Your task to perform on an android device: open app "Spotify" (install if not already installed) and go to login screen Image 0: 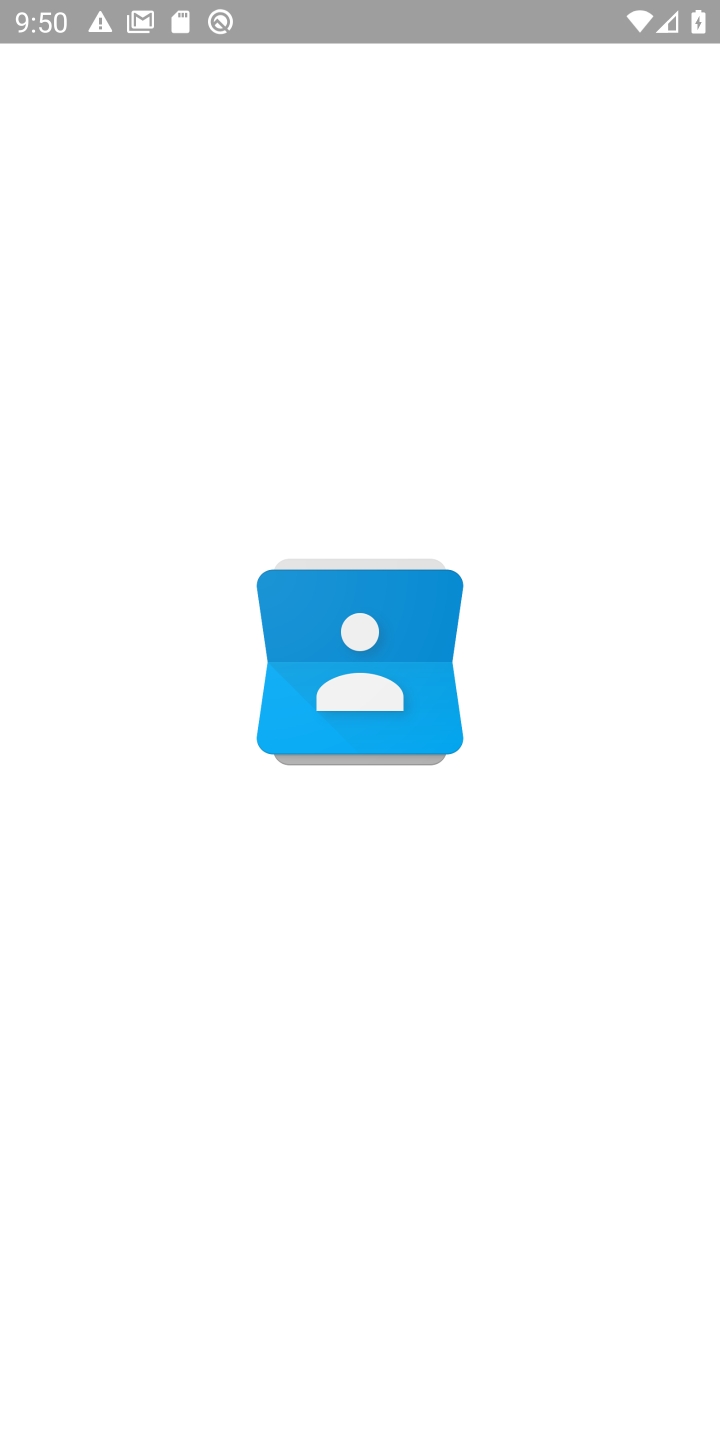
Step 0: press home button
Your task to perform on an android device: open app "Spotify" (install if not already installed) and go to login screen Image 1: 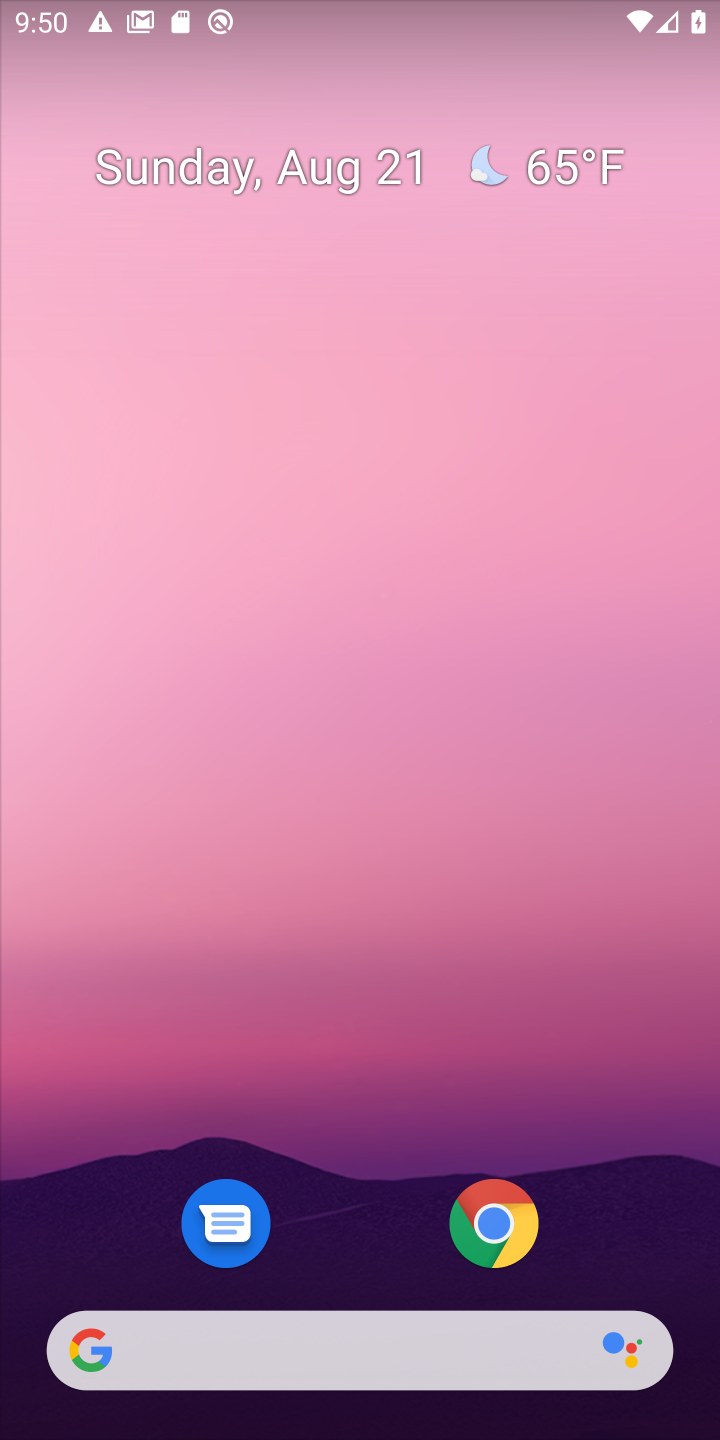
Step 1: drag from (616, 985) to (654, 121)
Your task to perform on an android device: open app "Spotify" (install if not already installed) and go to login screen Image 2: 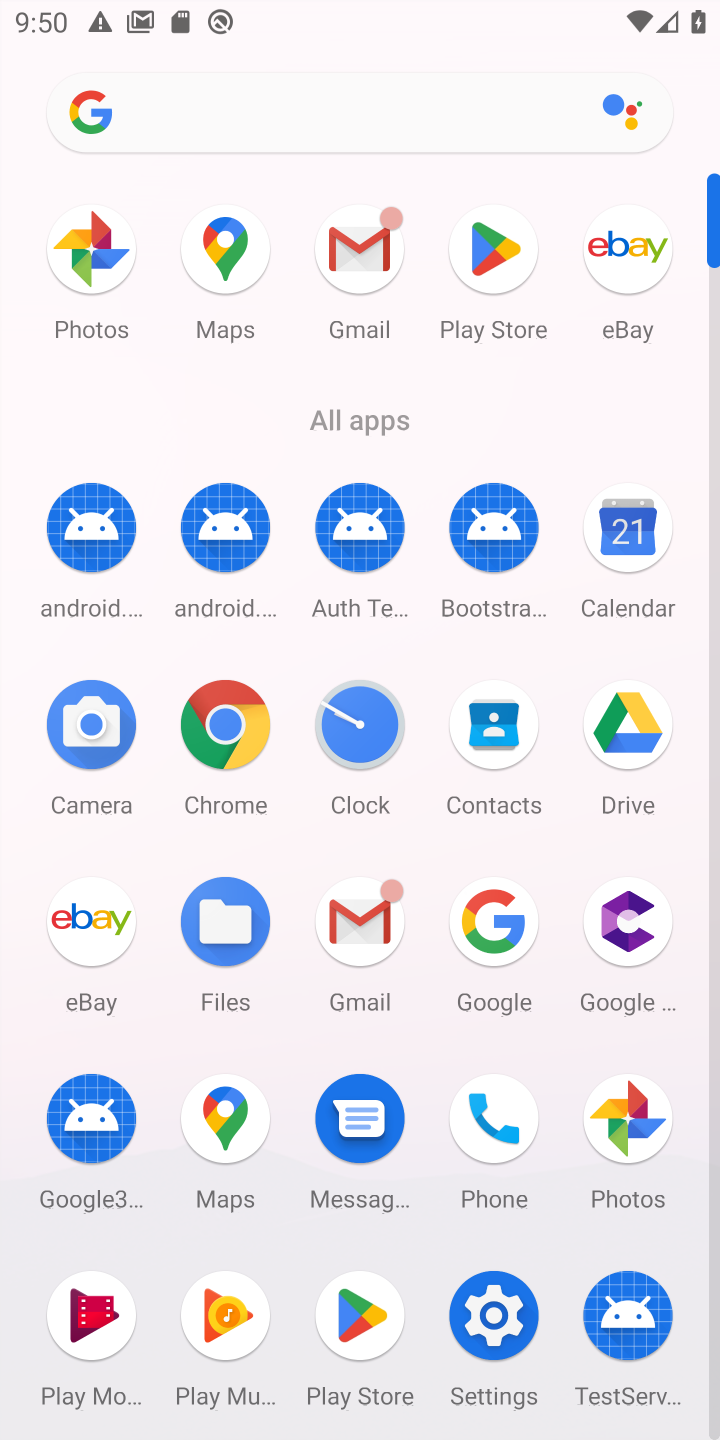
Step 2: click (494, 251)
Your task to perform on an android device: open app "Spotify" (install if not already installed) and go to login screen Image 3: 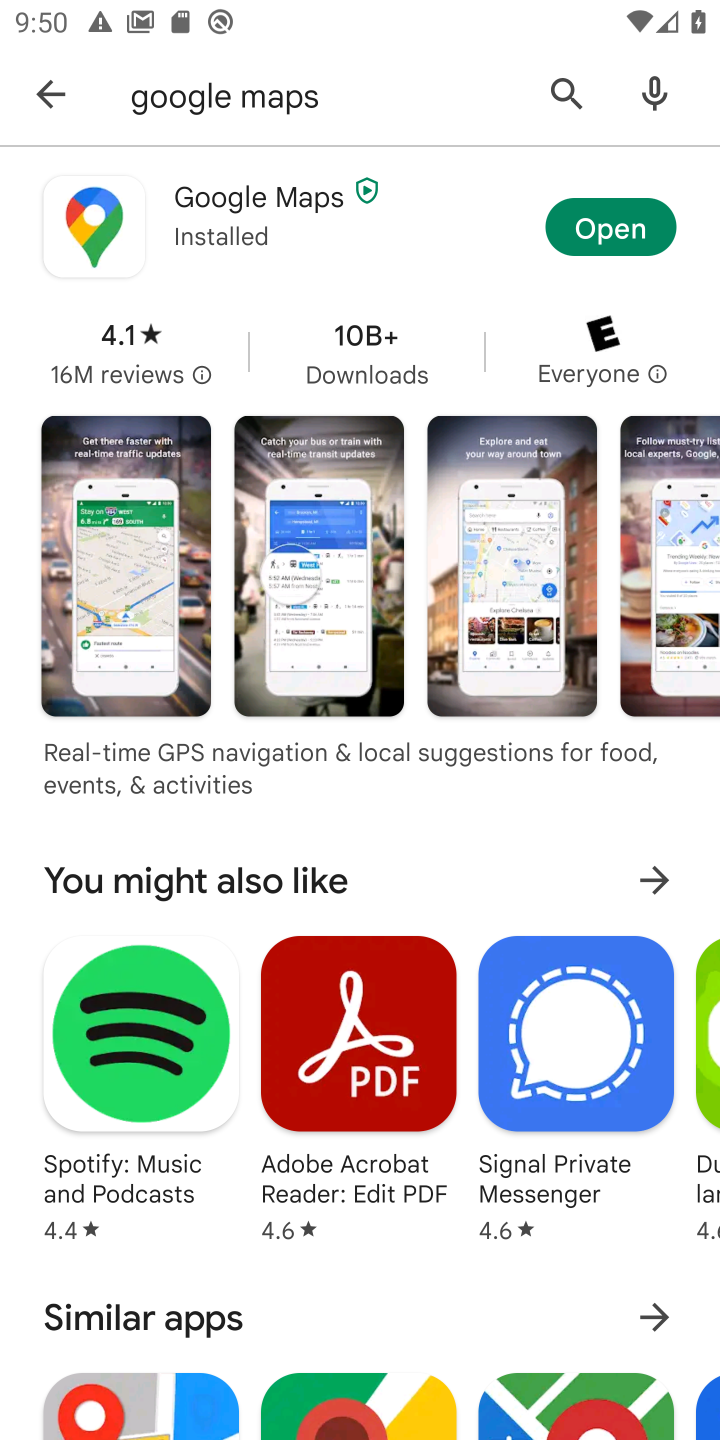
Step 3: press back button
Your task to perform on an android device: open app "Spotify" (install if not already installed) and go to login screen Image 4: 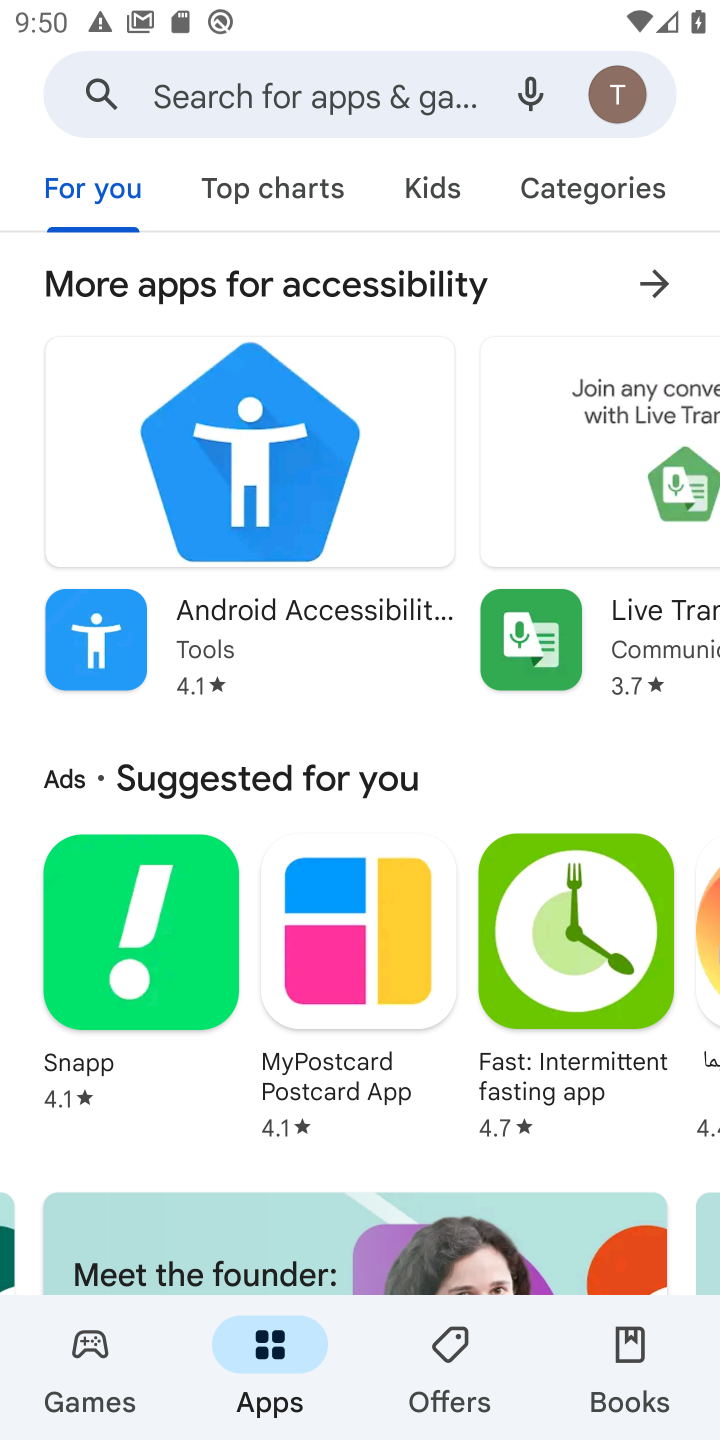
Step 4: click (306, 106)
Your task to perform on an android device: open app "Spotify" (install if not already installed) and go to login screen Image 5: 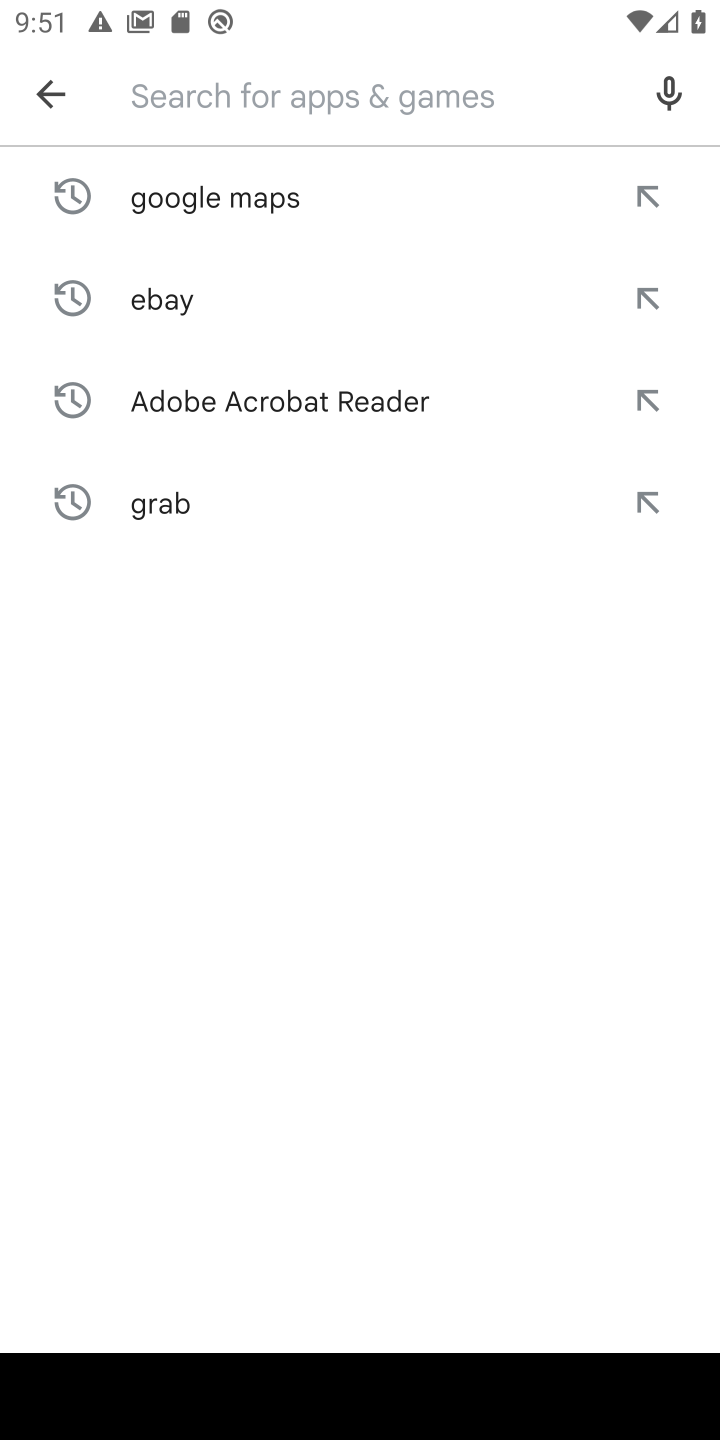
Step 5: press enter
Your task to perform on an android device: open app "Spotify" (install if not already installed) and go to login screen Image 6: 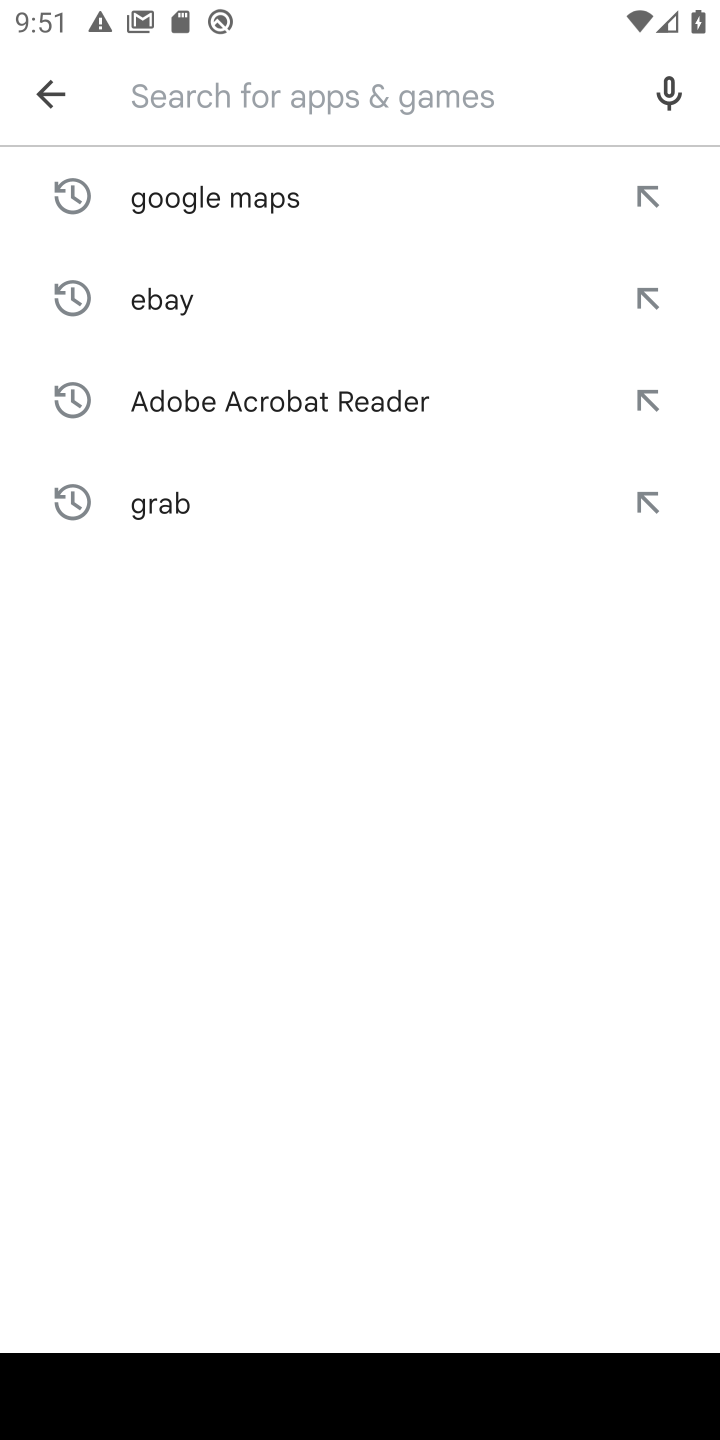
Step 6: type "spotify"
Your task to perform on an android device: open app "Spotify" (install if not already installed) and go to login screen Image 7: 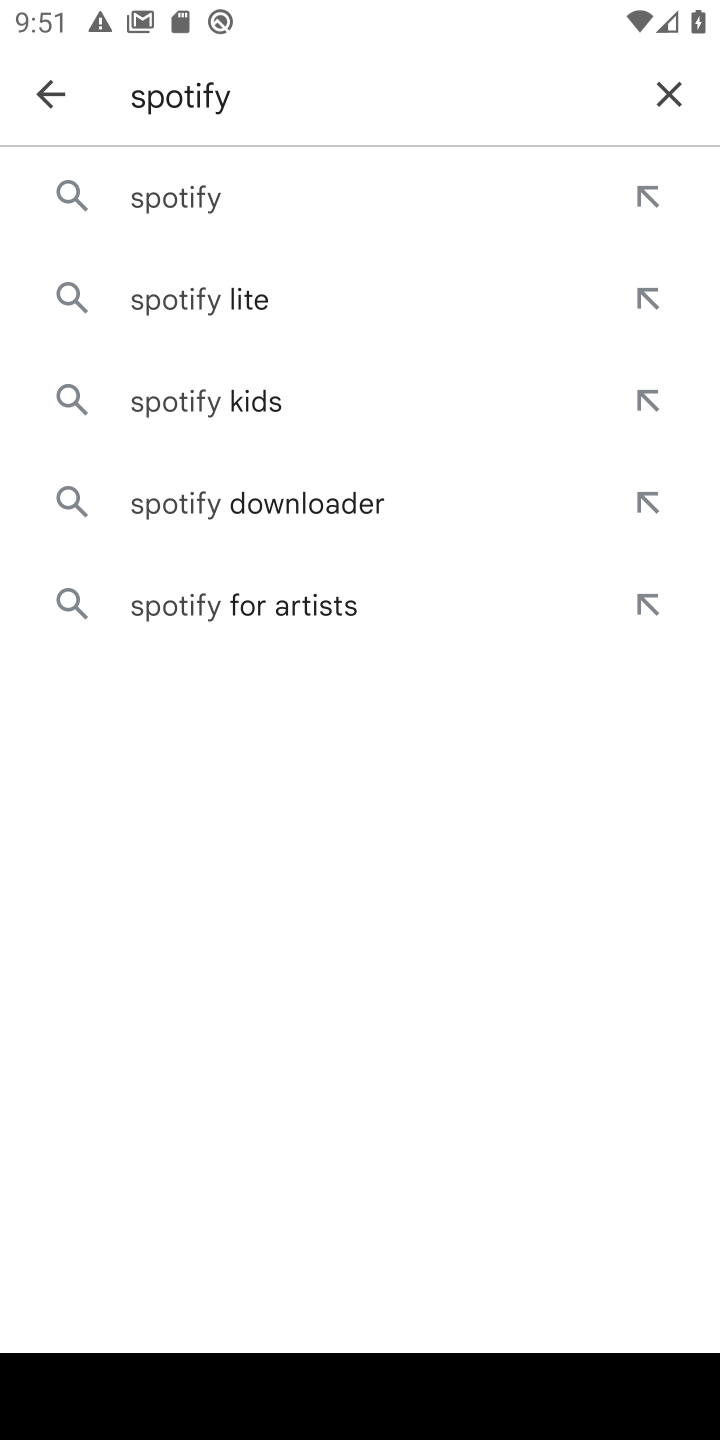
Step 7: click (296, 199)
Your task to perform on an android device: open app "Spotify" (install if not already installed) and go to login screen Image 8: 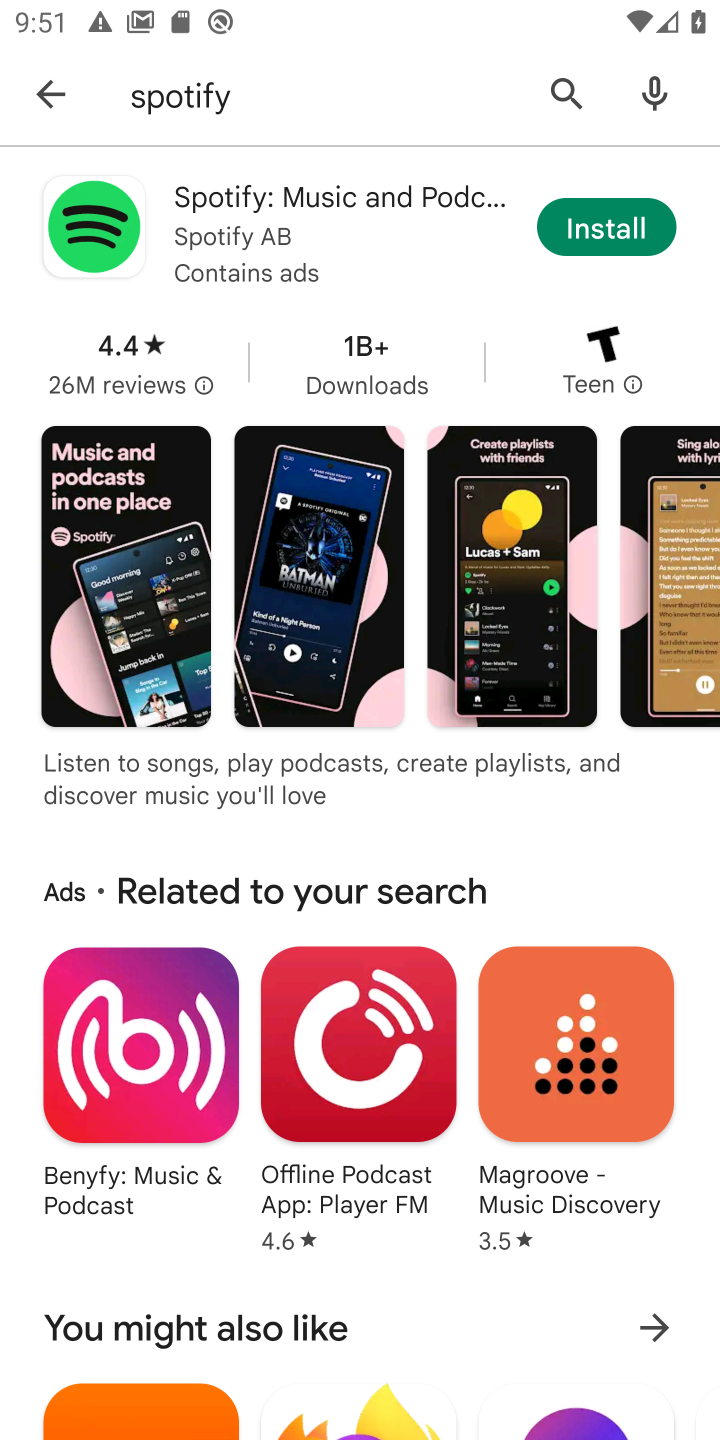
Step 8: click (612, 212)
Your task to perform on an android device: open app "Spotify" (install if not already installed) and go to login screen Image 9: 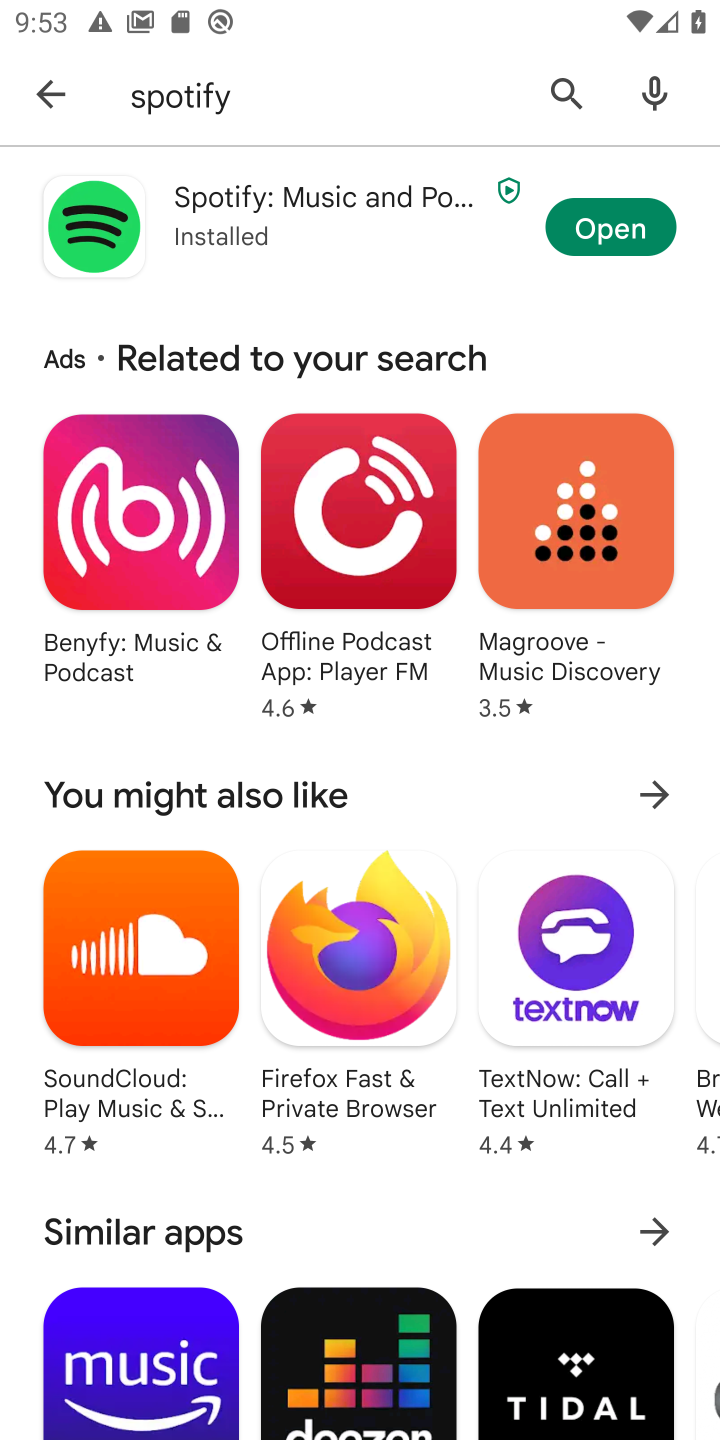
Step 9: click (635, 224)
Your task to perform on an android device: open app "Spotify" (install if not already installed) and go to login screen Image 10: 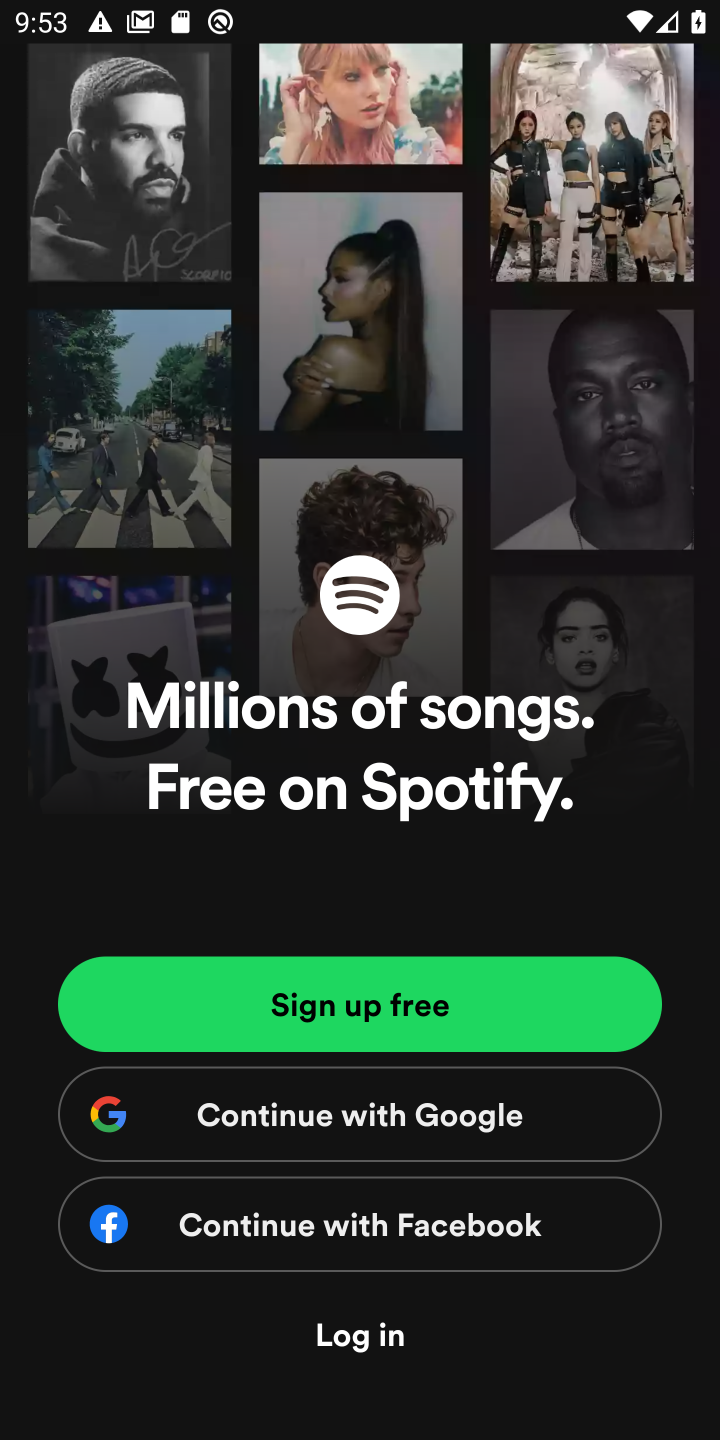
Step 10: task complete